Your task to perform on an android device: What's the weather going to be tomorrow? Image 0: 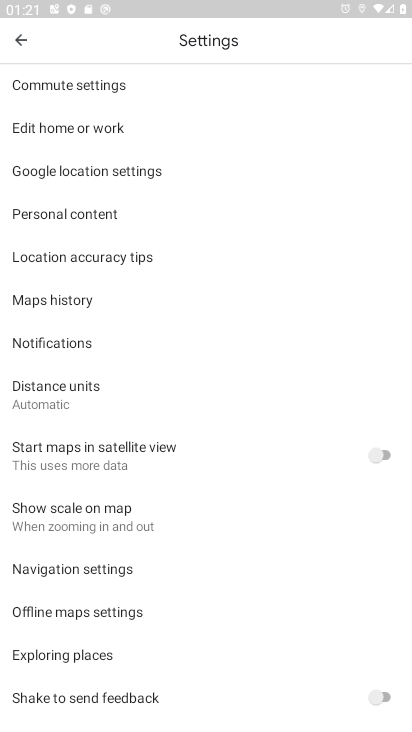
Step 0: press home button
Your task to perform on an android device: What's the weather going to be tomorrow? Image 1: 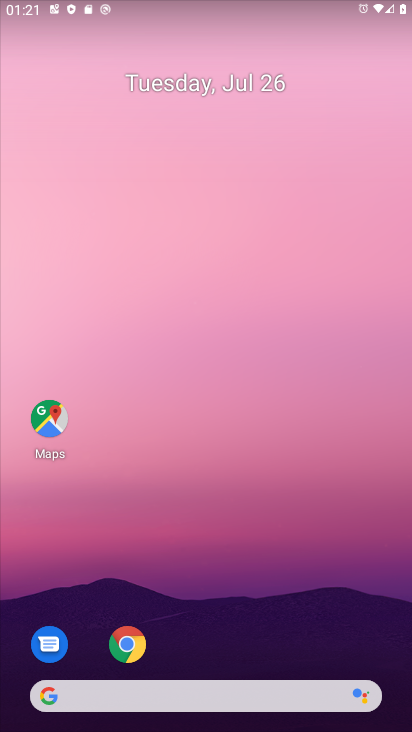
Step 1: drag from (207, 663) to (205, 344)
Your task to perform on an android device: What's the weather going to be tomorrow? Image 2: 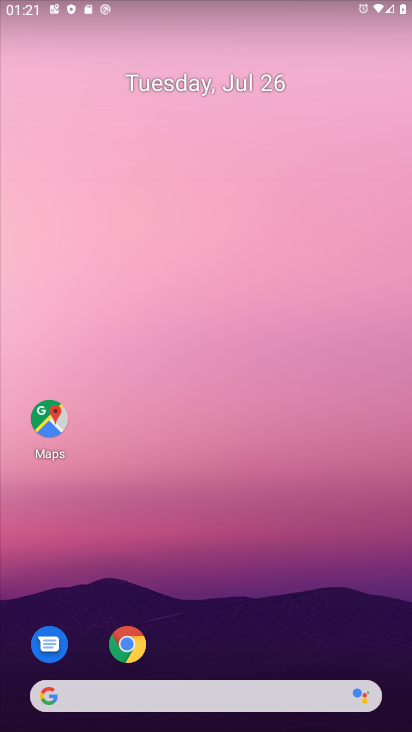
Step 2: click (130, 654)
Your task to perform on an android device: What's the weather going to be tomorrow? Image 3: 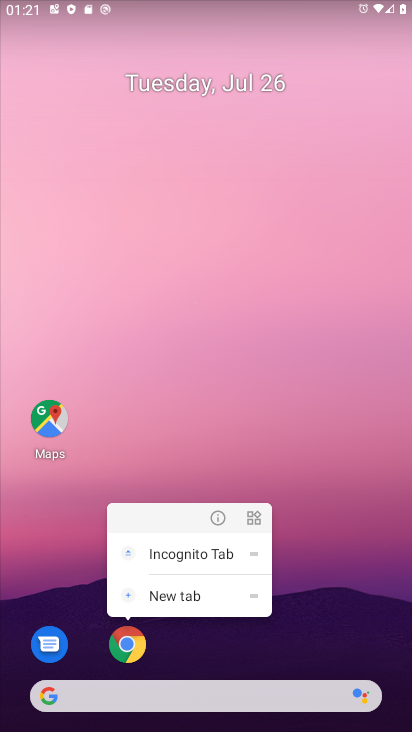
Step 3: click (117, 645)
Your task to perform on an android device: What's the weather going to be tomorrow? Image 4: 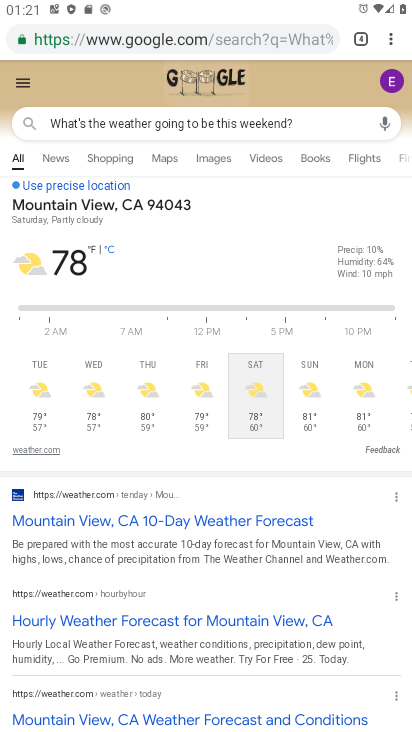
Step 4: click (394, 43)
Your task to perform on an android device: What's the weather going to be tomorrow? Image 5: 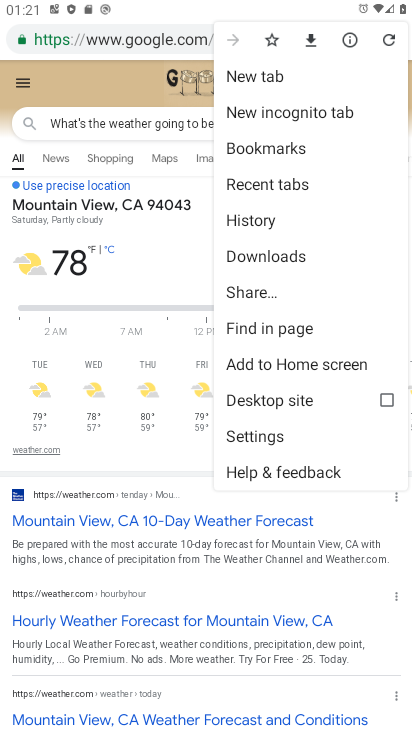
Step 5: click (303, 76)
Your task to perform on an android device: What's the weather going to be tomorrow? Image 6: 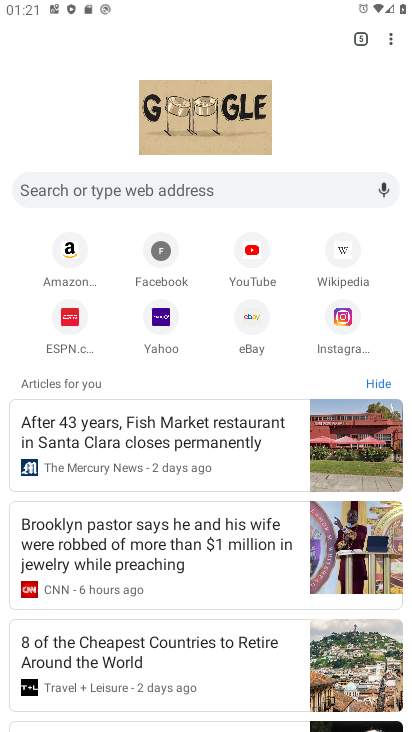
Step 6: click (202, 183)
Your task to perform on an android device: What's the weather going to be tomorrow? Image 7: 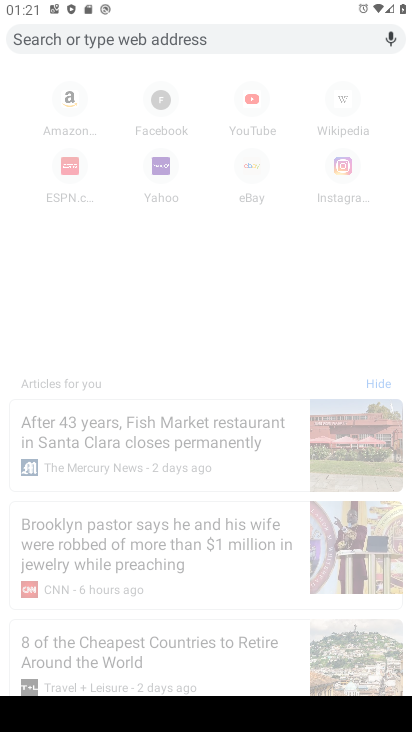
Step 7: type "What's the weather going to be tomorrow? "
Your task to perform on an android device: What's the weather going to be tomorrow? Image 8: 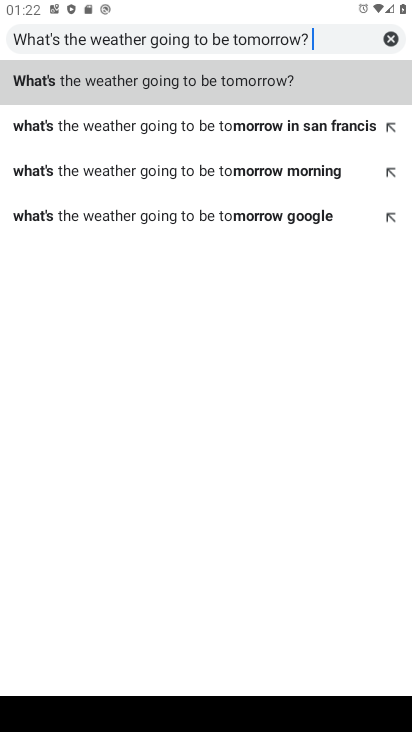
Step 8: click (215, 70)
Your task to perform on an android device: What's the weather going to be tomorrow? Image 9: 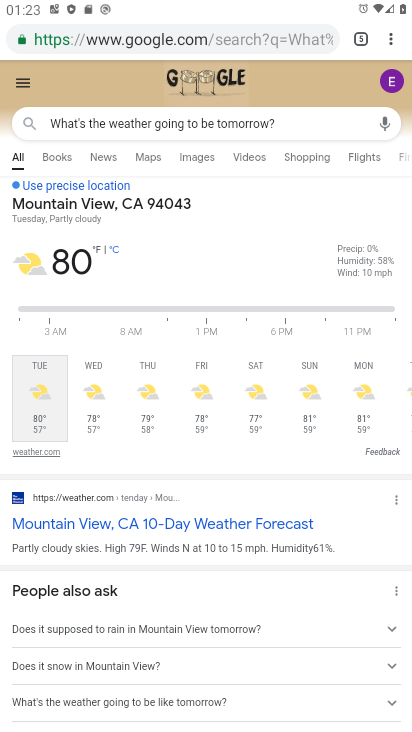
Step 9: task complete